Your task to perform on an android device: find photos in the google photos app Image 0: 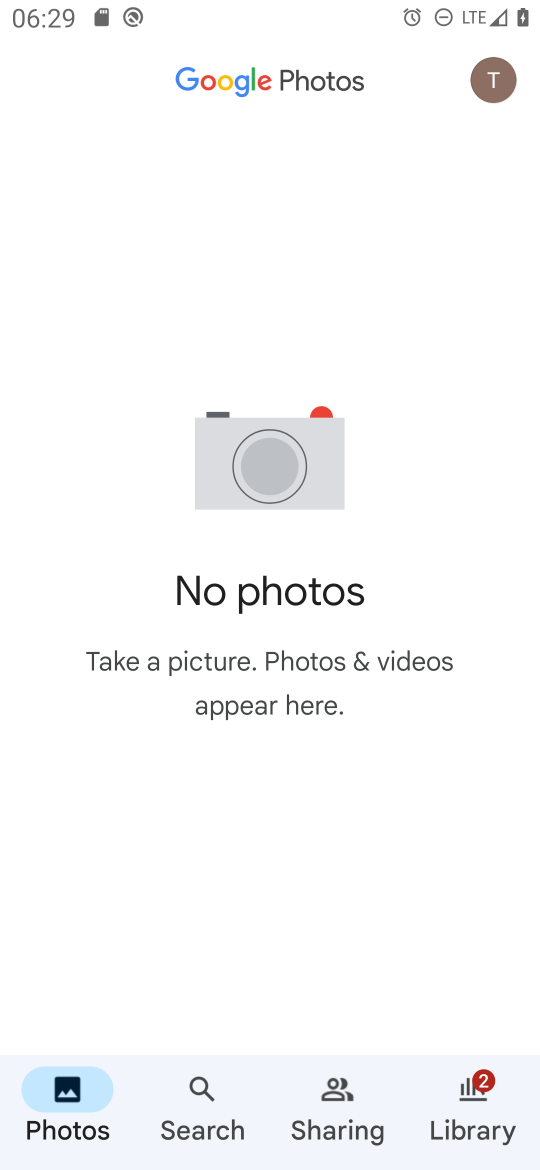
Step 0: press home button
Your task to perform on an android device: find photos in the google photos app Image 1: 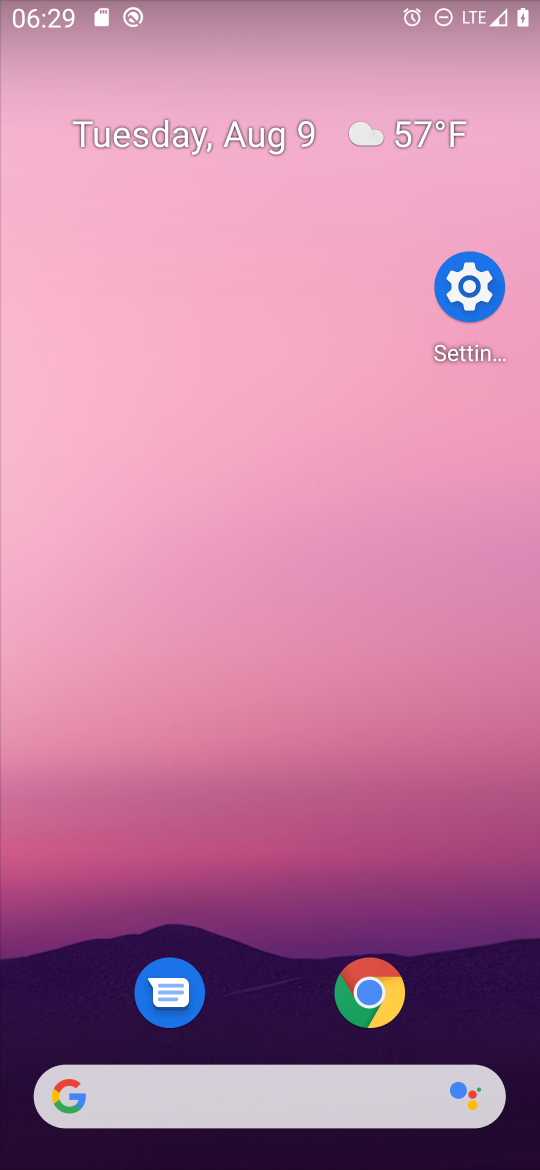
Step 1: drag from (324, 1109) to (369, 102)
Your task to perform on an android device: find photos in the google photos app Image 2: 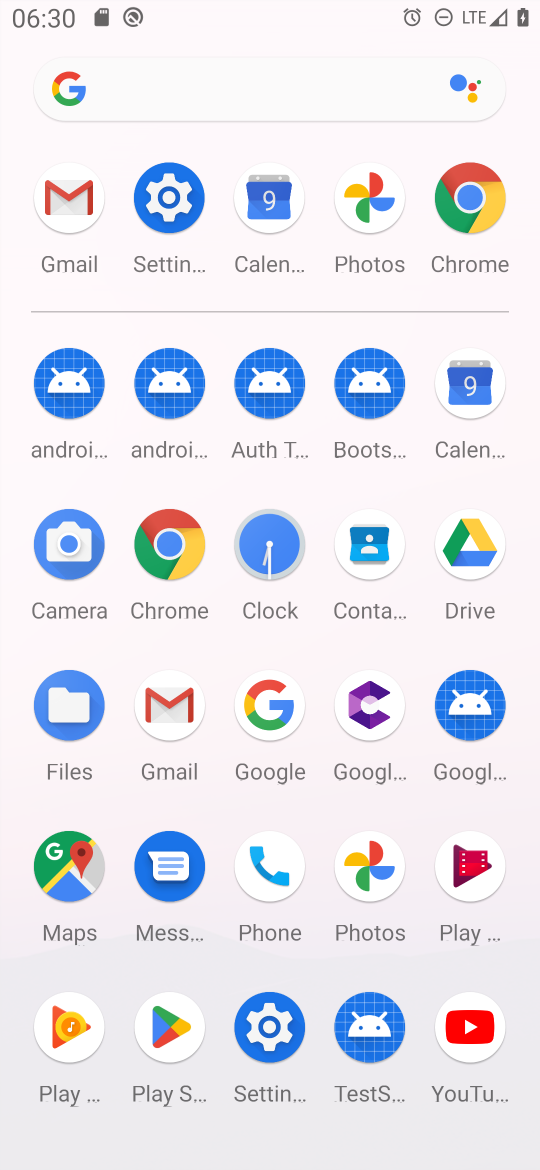
Step 2: click (389, 860)
Your task to perform on an android device: find photos in the google photos app Image 3: 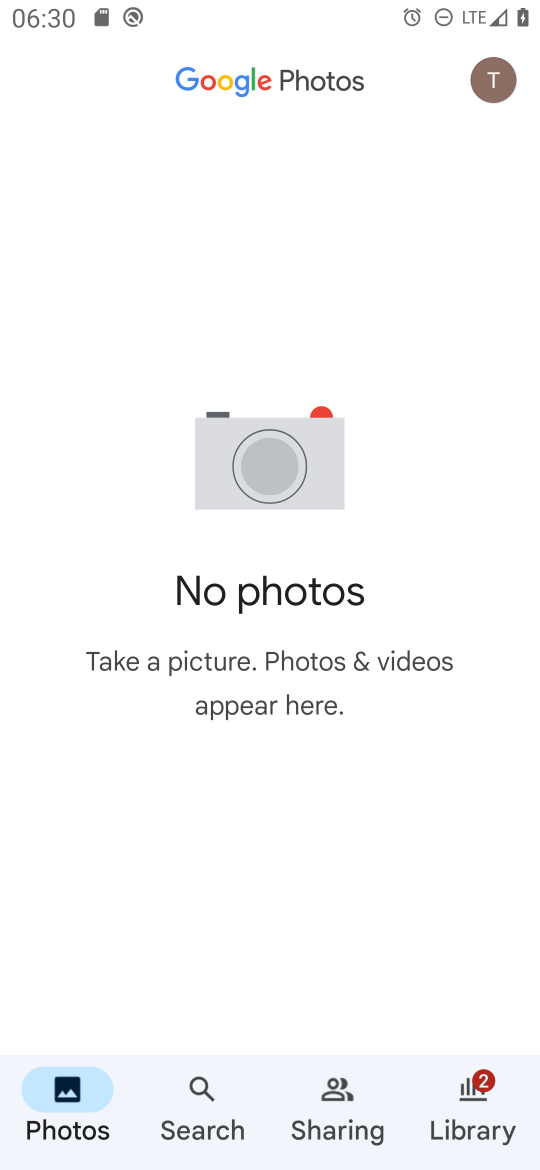
Step 3: task complete